Your task to perform on an android device: Search for hotels in Sydney Image 0: 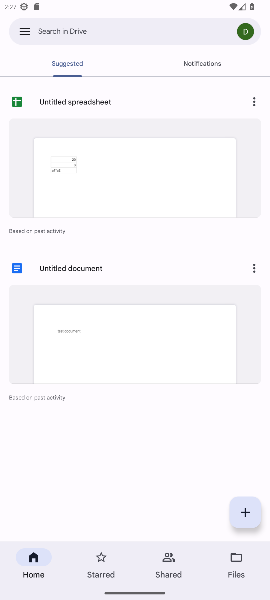
Step 0: press home button
Your task to perform on an android device: Search for hotels in Sydney Image 1: 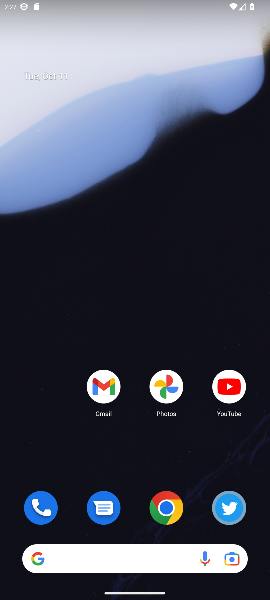
Step 1: click (174, 514)
Your task to perform on an android device: Search for hotels in Sydney Image 2: 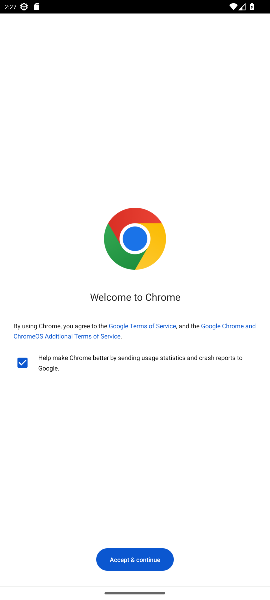
Step 2: click (117, 560)
Your task to perform on an android device: Search for hotels in Sydney Image 3: 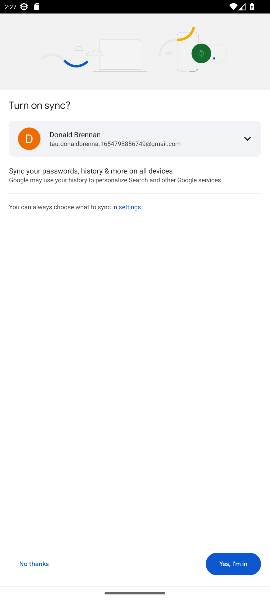
Step 3: click (21, 562)
Your task to perform on an android device: Search for hotels in Sydney Image 4: 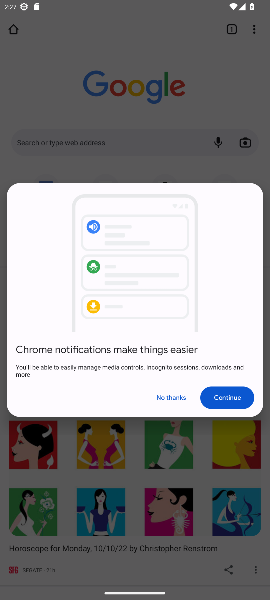
Step 4: click (168, 394)
Your task to perform on an android device: Search for hotels in Sydney Image 5: 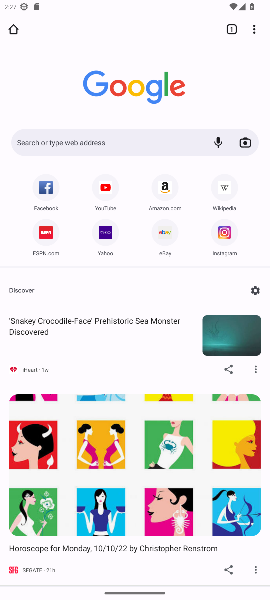
Step 5: click (80, 143)
Your task to perform on an android device: Search for hotels in Sydney Image 6: 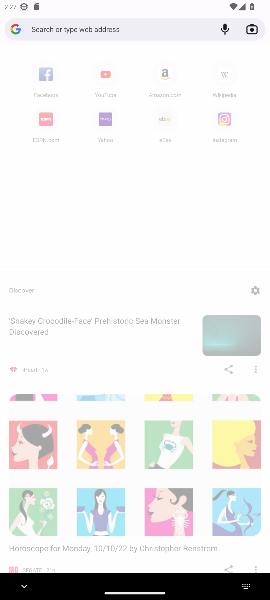
Step 6: type "hotels in Sydney"
Your task to perform on an android device: Search for hotels in Sydney Image 7: 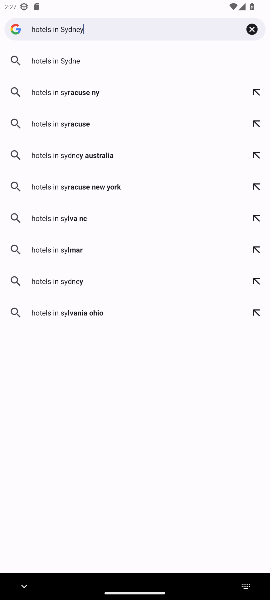
Step 7: press enter
Your task to perform on an android device: Search for hotels in Sydney Image 8: 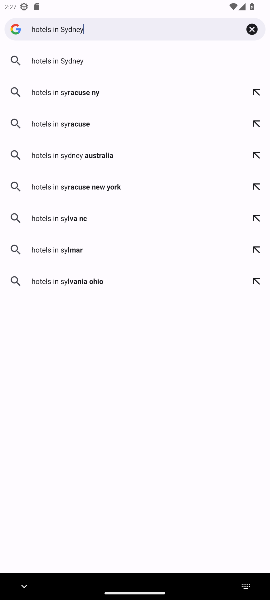
Step 8: type ""
Your task to perform on an android device: Search for hotels in Sydney Image 9: 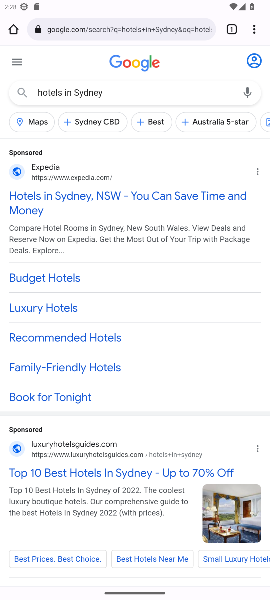
Step 9: drag from (222, 371) to (169, 58)
Your task to perform on an android device: Search for hotels in Sydney Image 10: 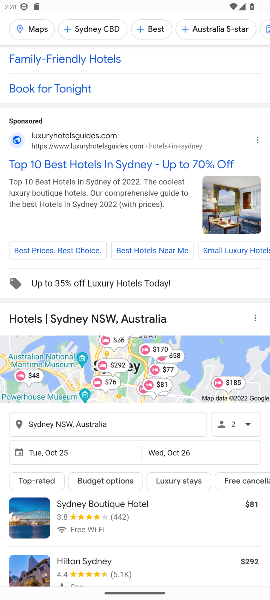
Step 10: drag from (219, 516) to (200, 246)
Your task to perform on an android device: Search for hotels in Sydney Image 11: 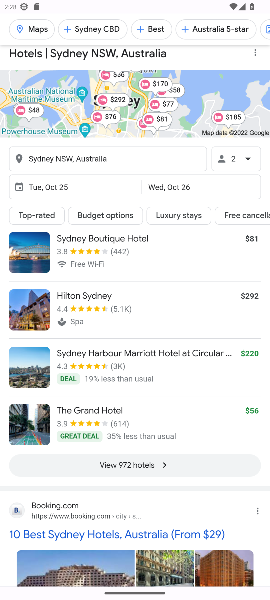
Step 11: click (129, 467)
Your task to perform on an android device: Search for hotels in Sydney Image 12: 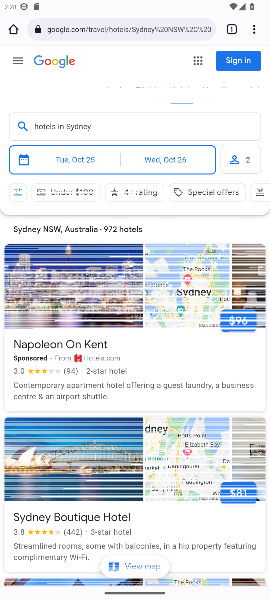
Step 12: task complete